Your task to perform on an android device: Open Youtube and go to the subscriptions tab Image 0: 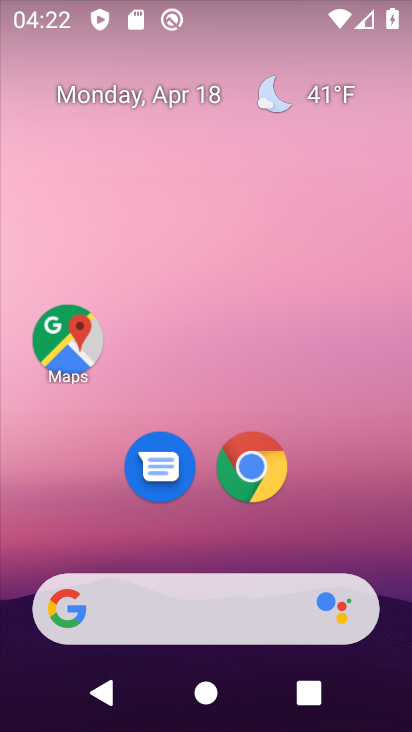
Step 0: drag from (210, 551) to (212, 165)
Your task to perform on an android device: Open Youtube and go to the subscriptions tab Image 1: 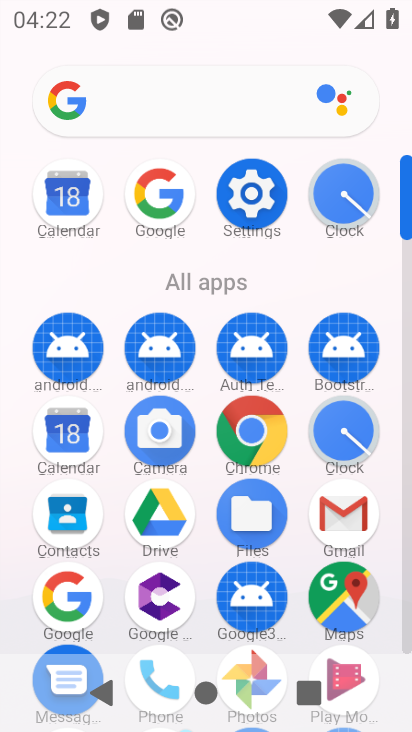
Step 1: drag from (292, 521) to (302, 175)
Your task to perform on an android device: Open Youtube and go to the subscriptions tab Image 2: 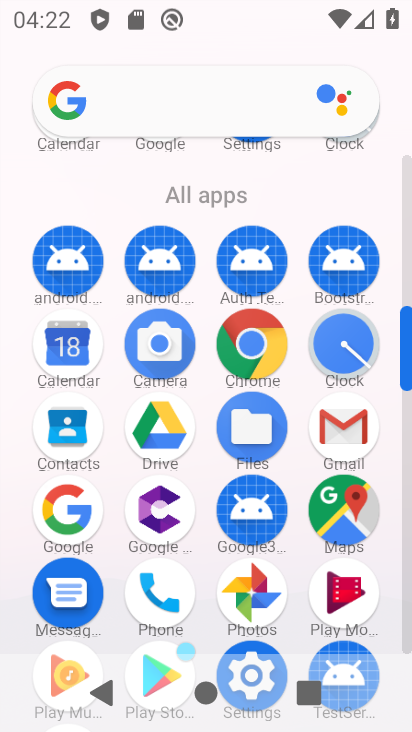
Step 2: drag from (198, 567) to (198, 261)
Your task to perform on an android device: Open Youtube and go to the subscriptions tab Image 3: 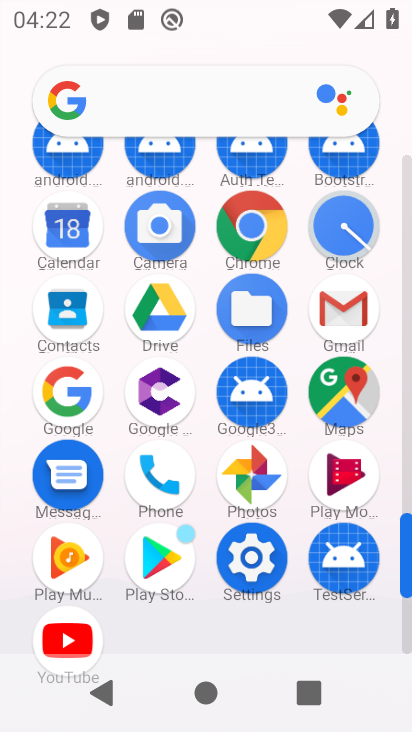
Step 3: click (68, 623)
Your task to perform on an android device: Open Youtube and go to the subscriptions tab Image 4: 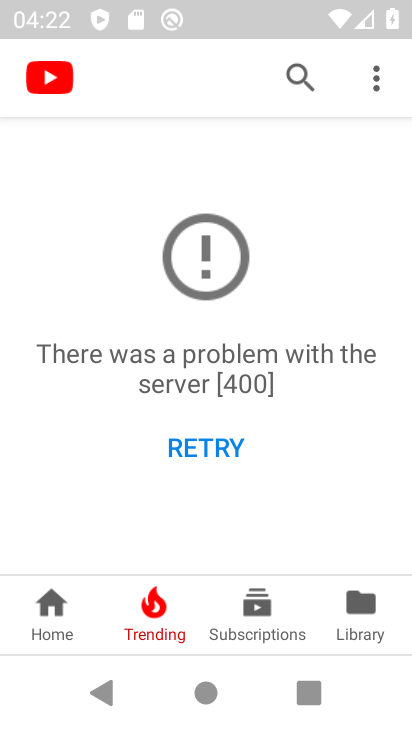
Step 4: click (250, 586)
Your task to perform on an android device: Open Youtube and go to the subscriptions tab Image 5: 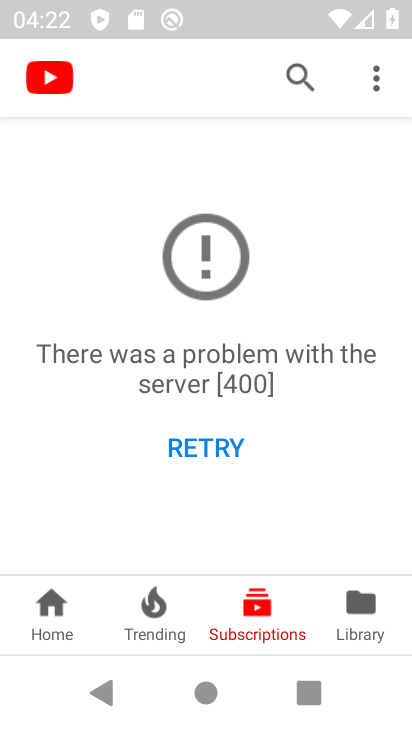
Step 5: task complete